Your task to perform on an android device: turn notification dots off Image 0: 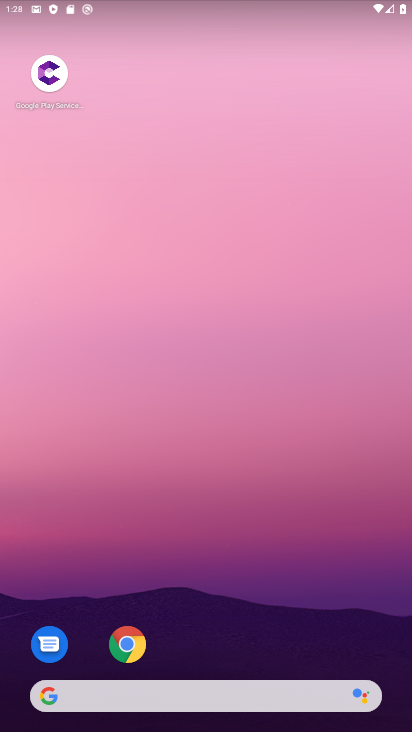
Step 0: drag from (169, 591) to (219, 112)
Your task to perform on an android device: turn notification dots off Image 1: 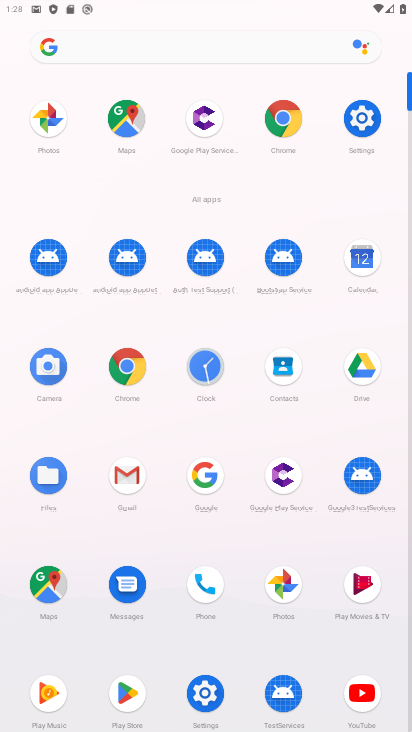
Step 1: click (361, 111)
Your task to perform on an android device: turn notification dots off Image 2: 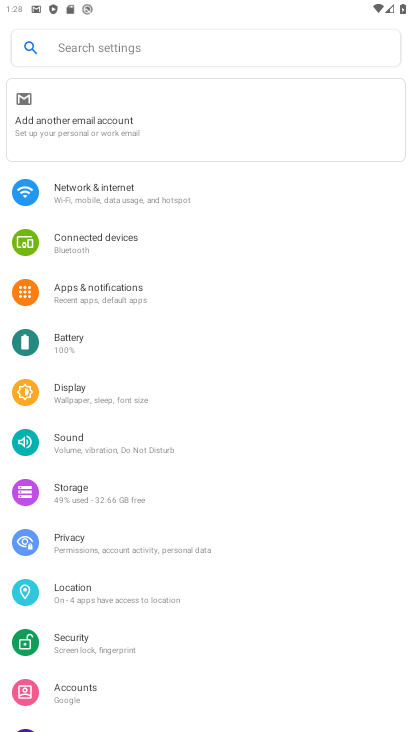
Step 2: click (131, 291)
Your task to perform on an android device: turn notification dots off Image 3: 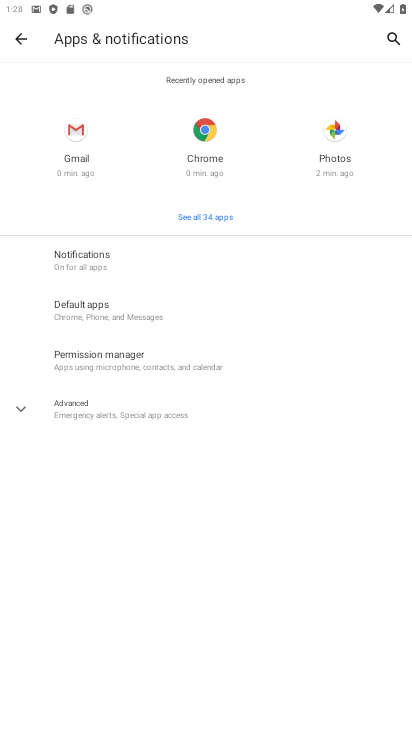
Step 3: click (127, 260)
Your task to perform on an android device: turn notification dots off Image 4: 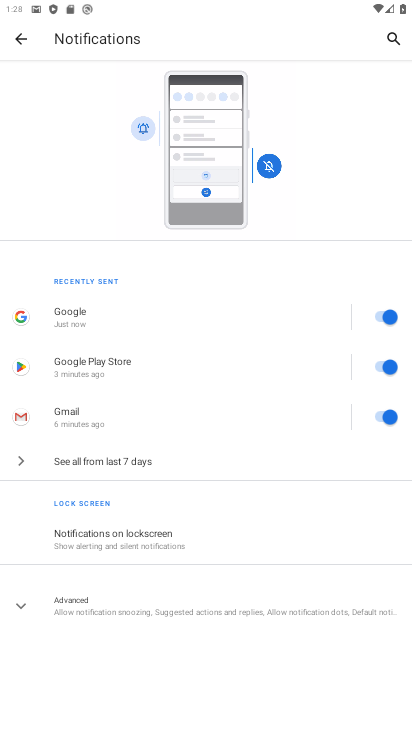
Step 4: click (113, 606)
Your task to perform on an android device: turn notification dots off Image 5: 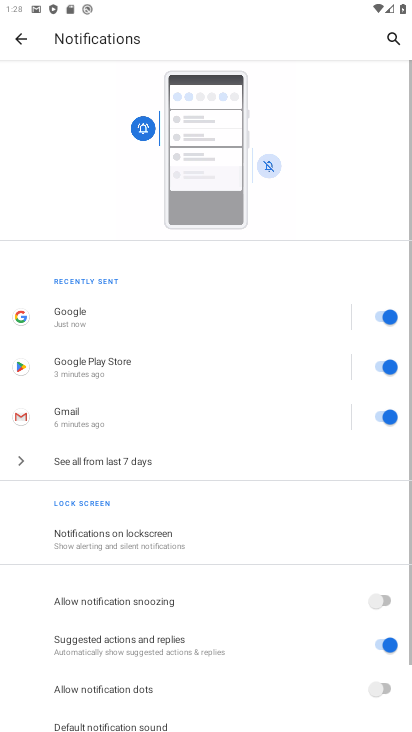
Step 5: task complete